Your task to perform on an android device: Add corsair k70 to the cart on amazon, then select checkout. Image 0: 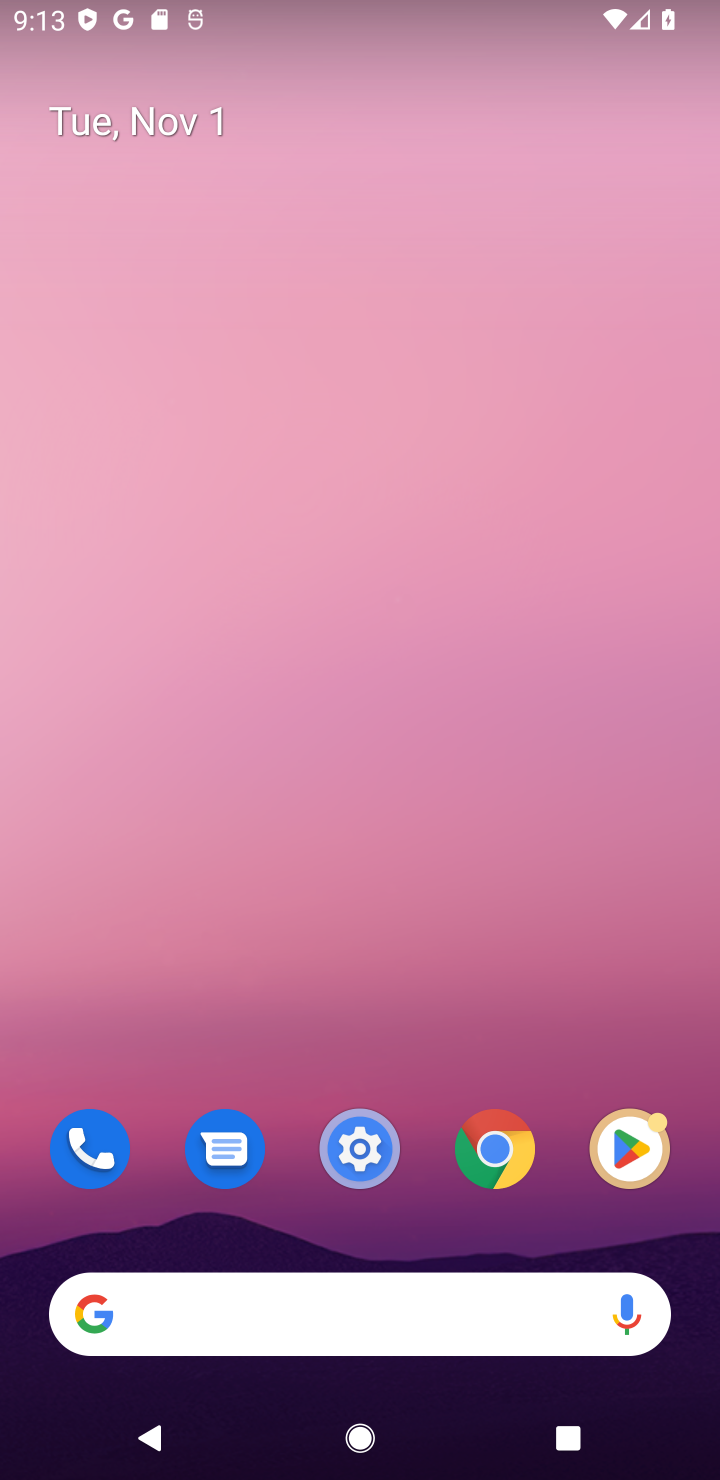
Step 0: press home button
Your task to perform on an android device: Add corsair k70 to the cart on amazon, then select checkout. Image 1: 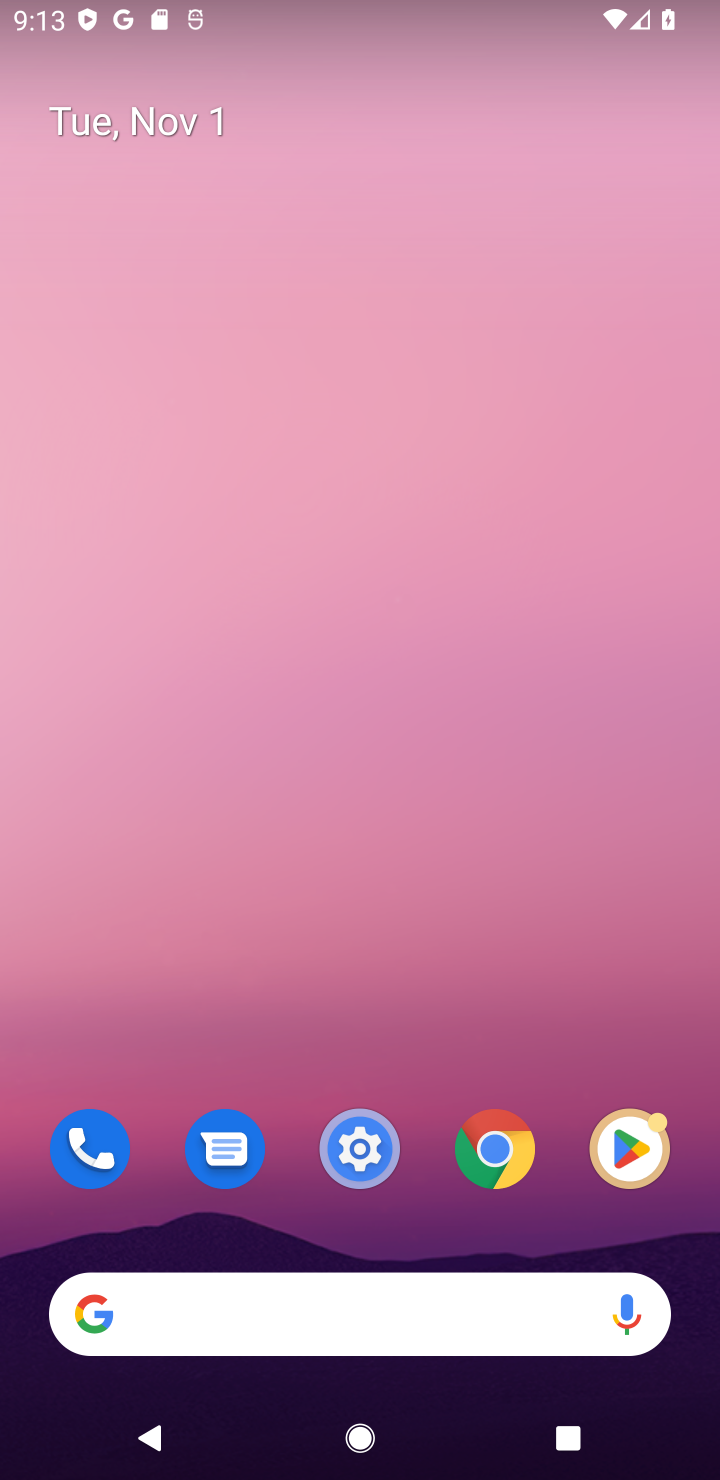
Step 1: click (167, 1322)
Your task to perform on an android device: Add corsair k70 to the cart on amazon, then select checkout. Image 2: 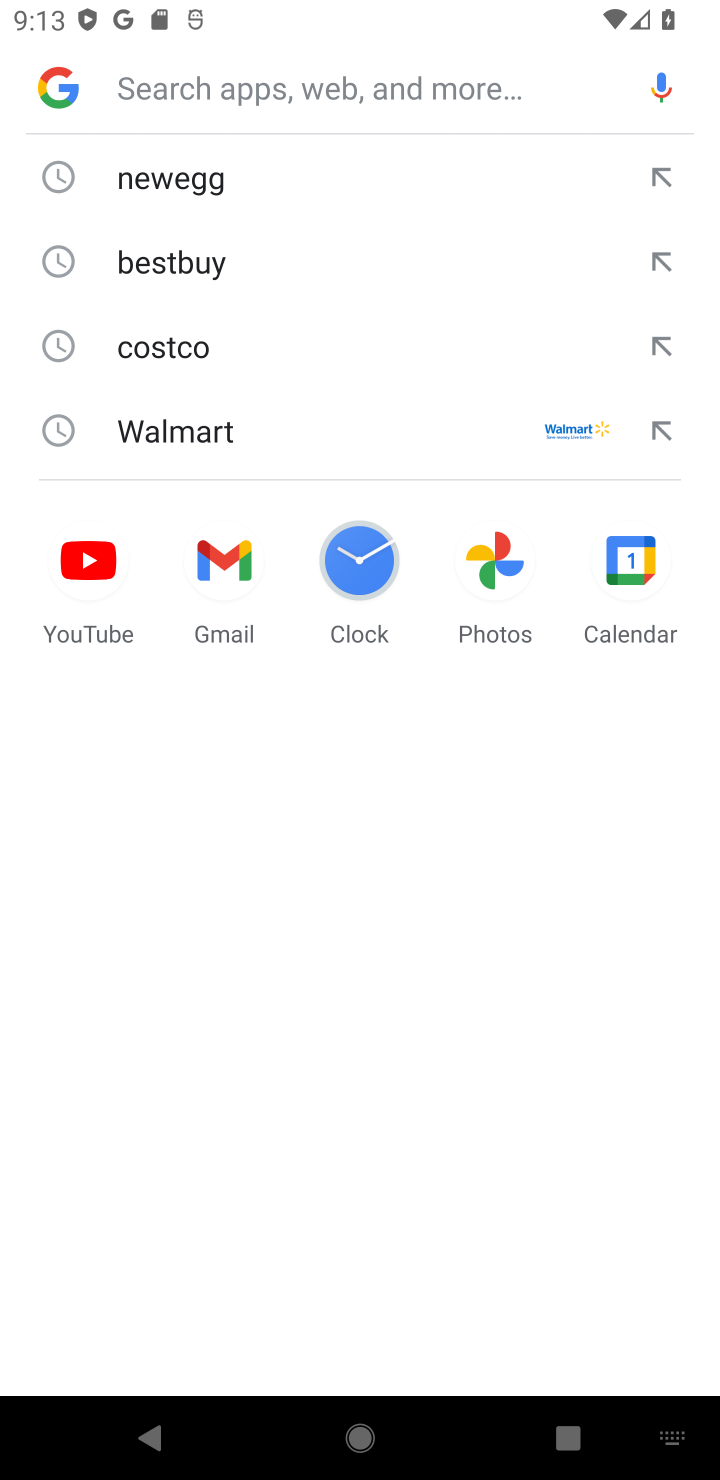
Step 2: type "amazon"
Your task to perform on an android device: Add corsair k70 to the cart on amazon, then select checkout. Image 3: 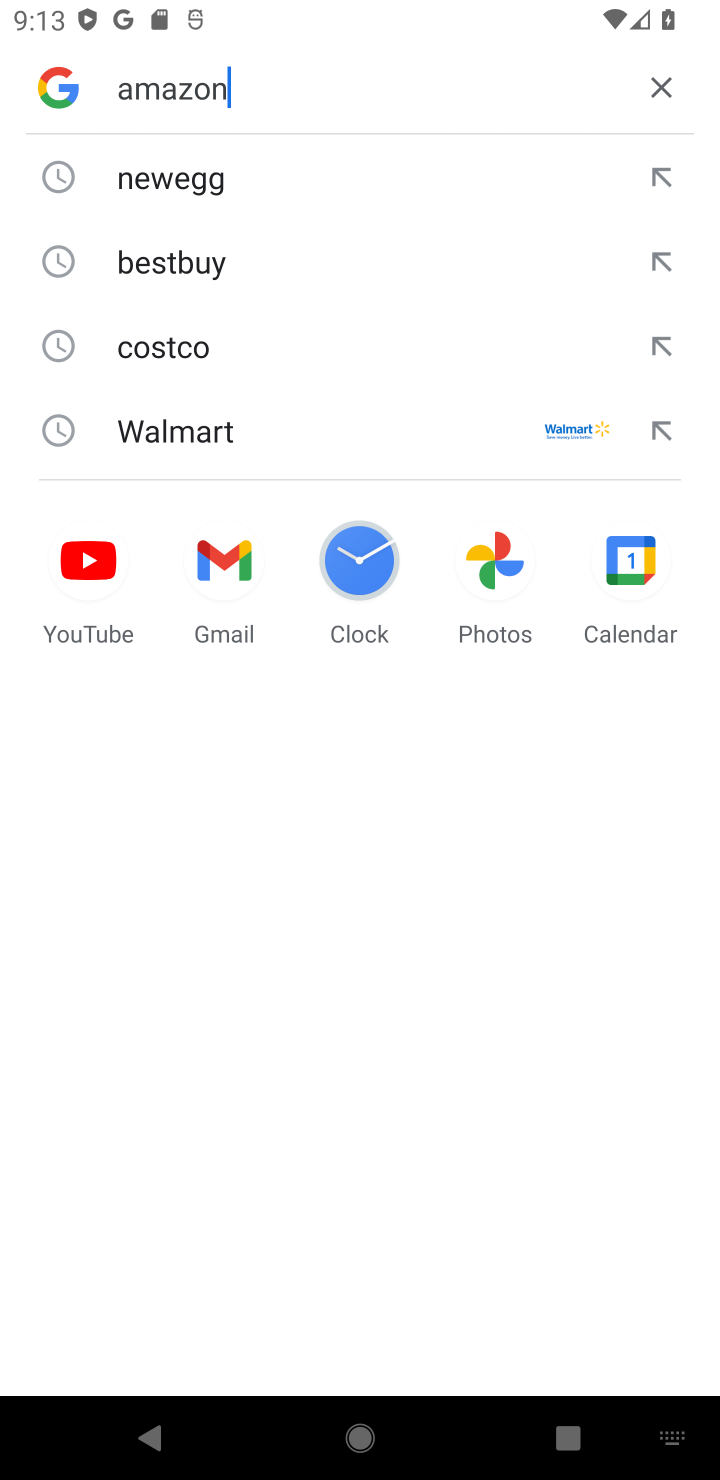
Step 3: press enter
Your task to perform on an android device: Add corsair k70 to the cart on amazon, then select checkout. Image 4: 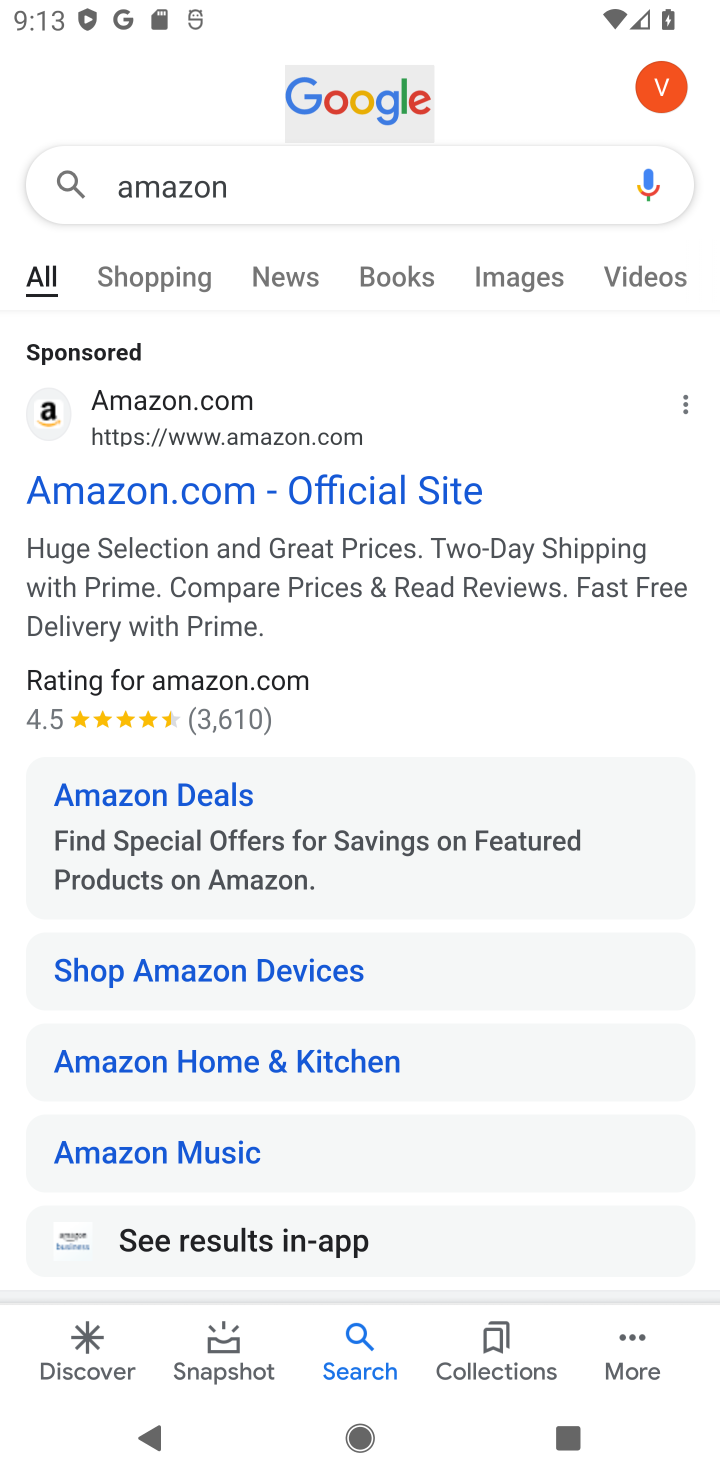
Step 4: click (287, 494)
Your task to perform on an android device: Add corsair k70 to the cart on amazon, then select checkout. Image 5: 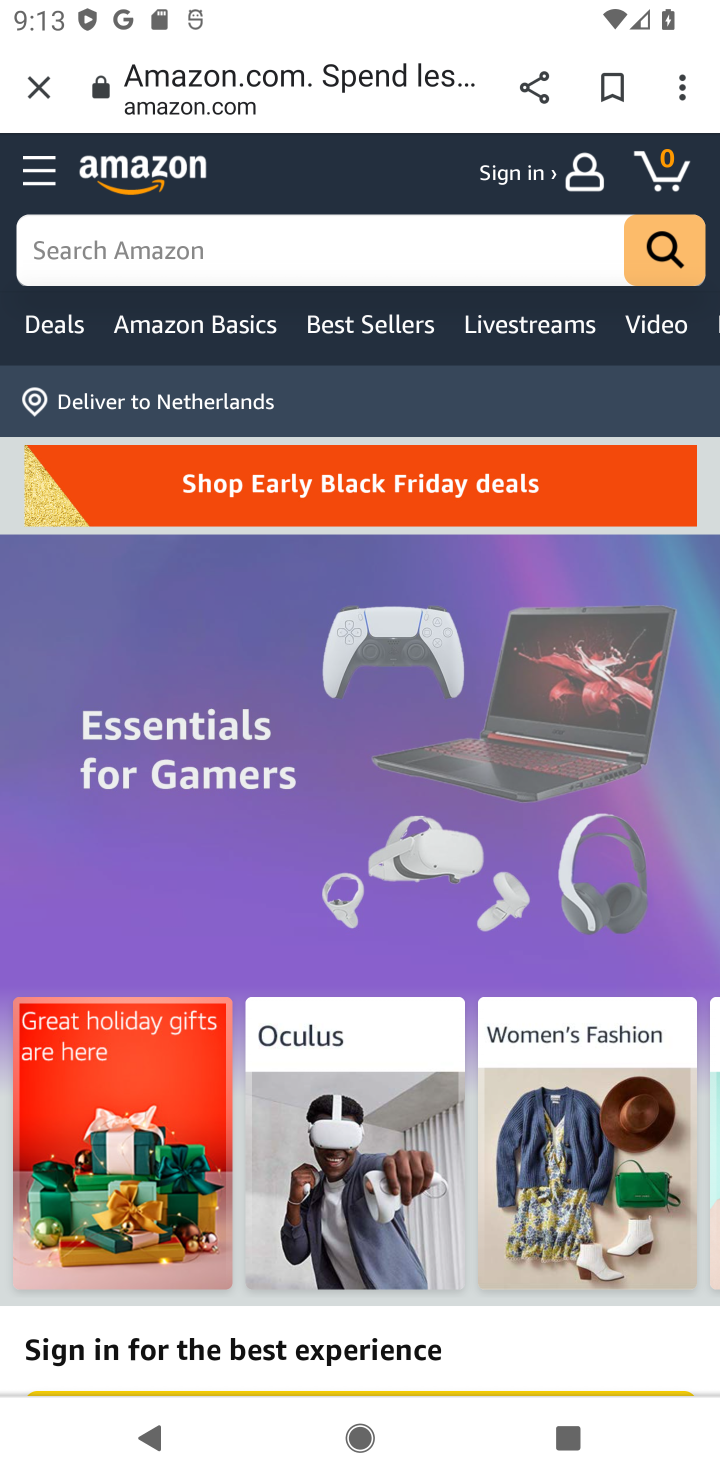
Step 5: click (73, 248)
Your task to perform on an android device: Add corsair k70 to the cart on amazon, then select checkout. Image 6: 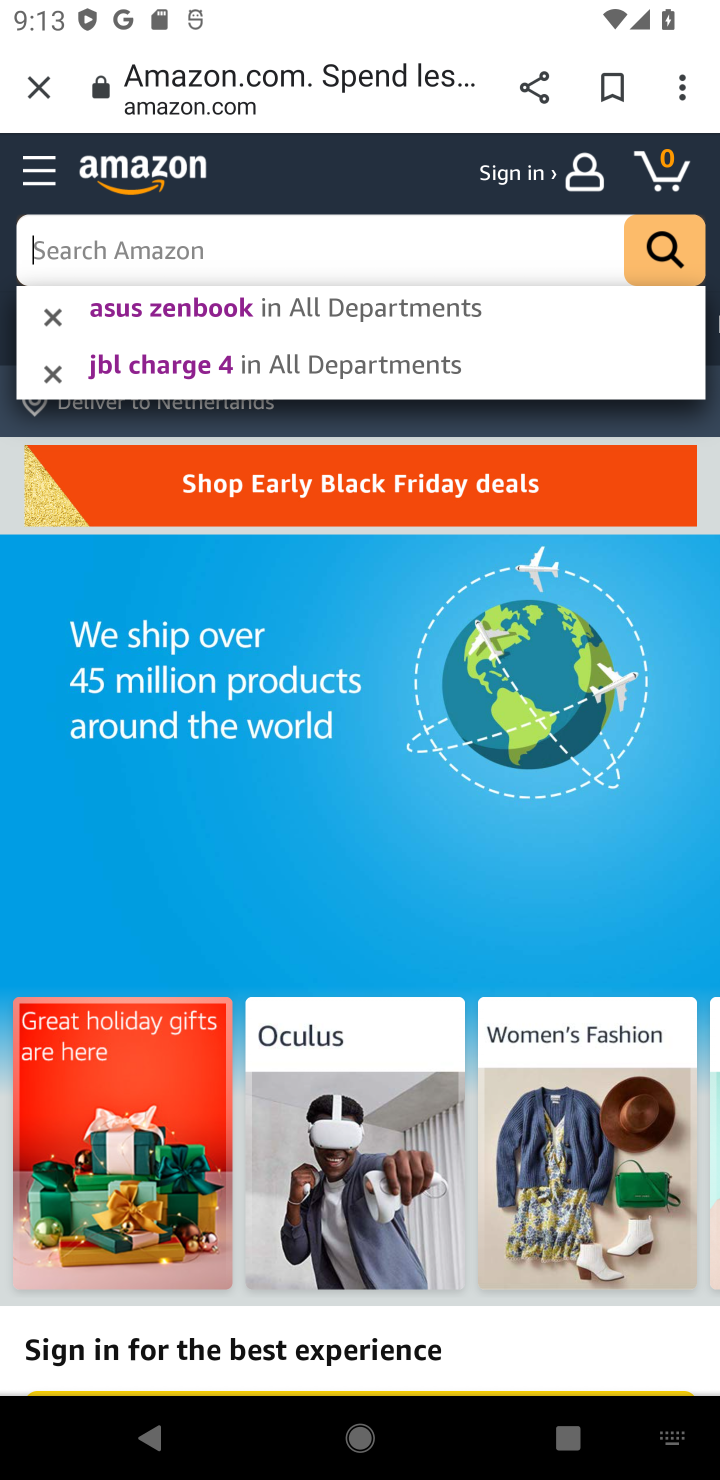
Step 6: type "corsair k70"
Your task to perform on an android device: Add corsair k70 to the cart on amazon, then select checkout. Image 7: 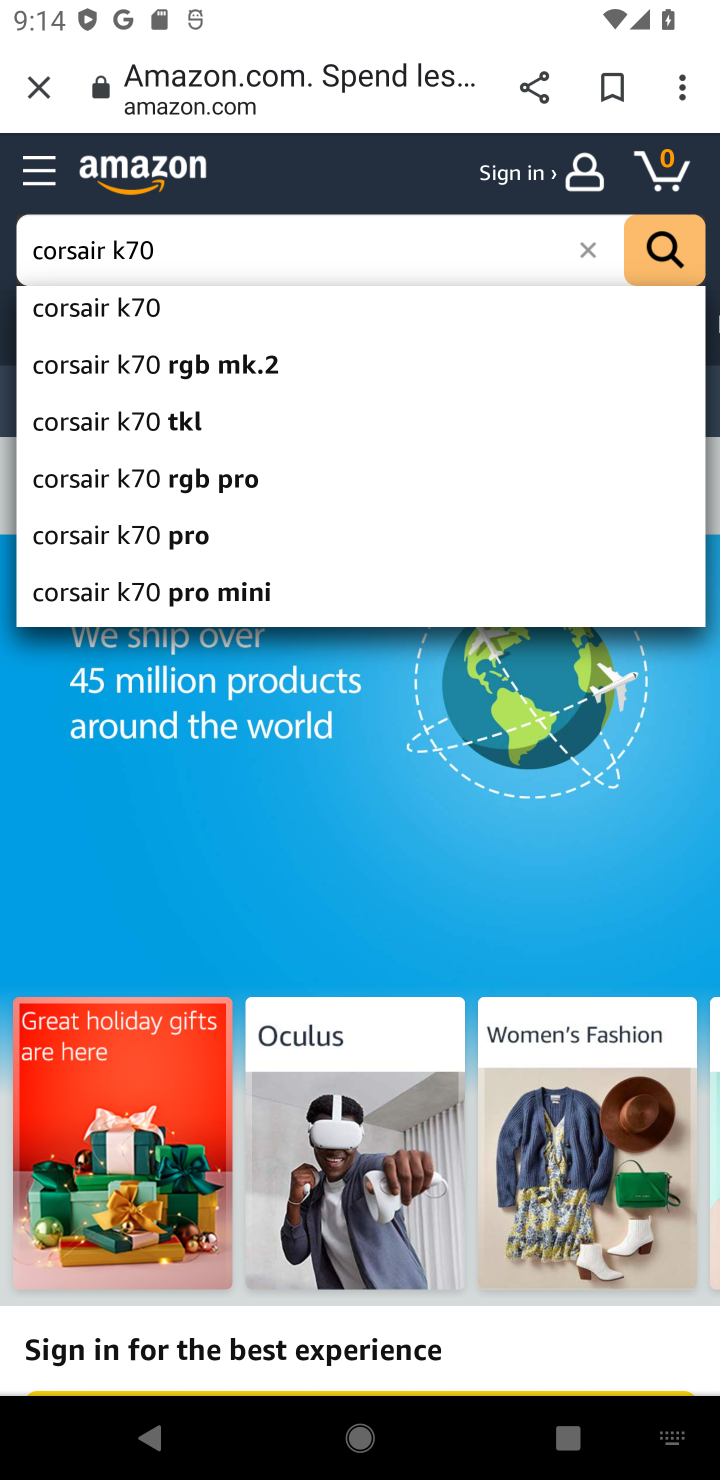
Step 7: click (657, 242)
Your task to perform on an android device: Add corsair k70 to the cart on amazon, then select checkout. Image 8: 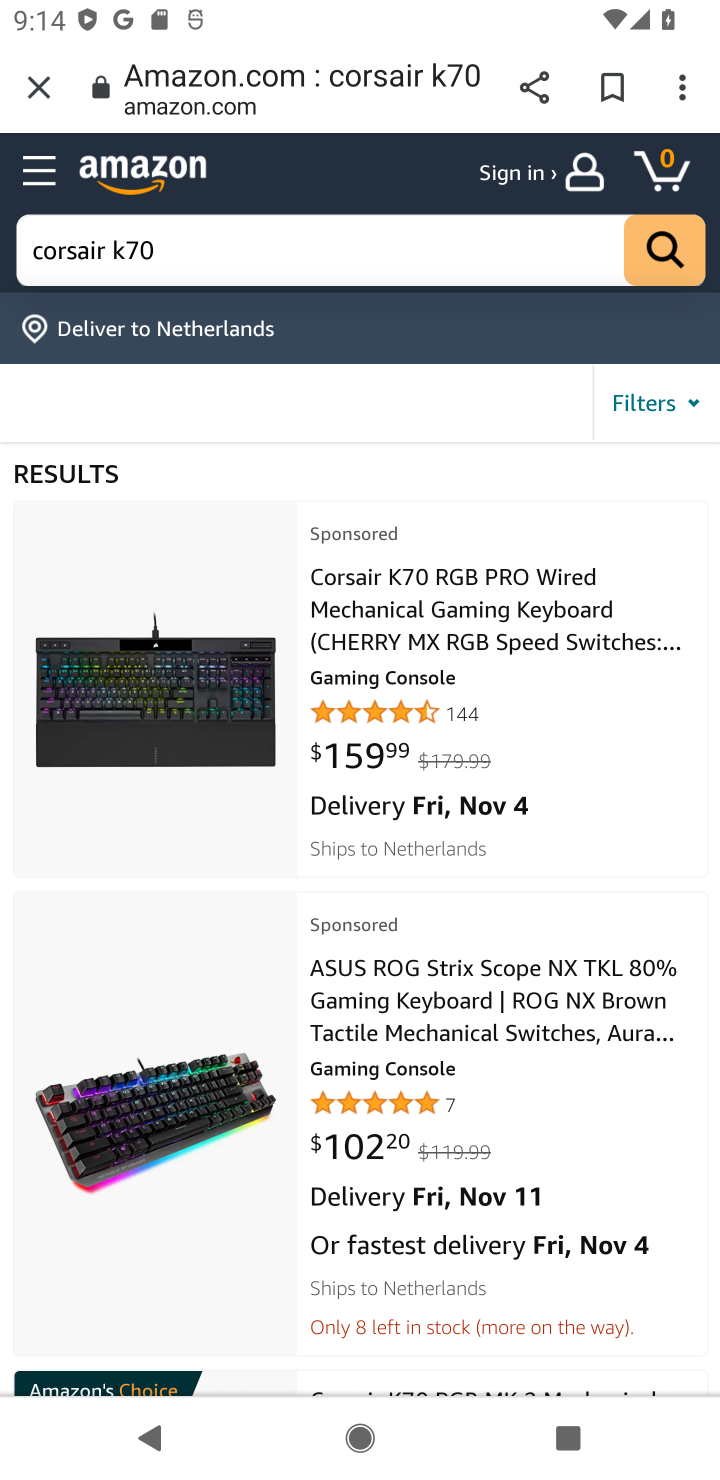
Step 8: click (477, 618)
Your task to perform on an android device: Add corsair k70 to the cart on amazon, then select checkout. Image 9: 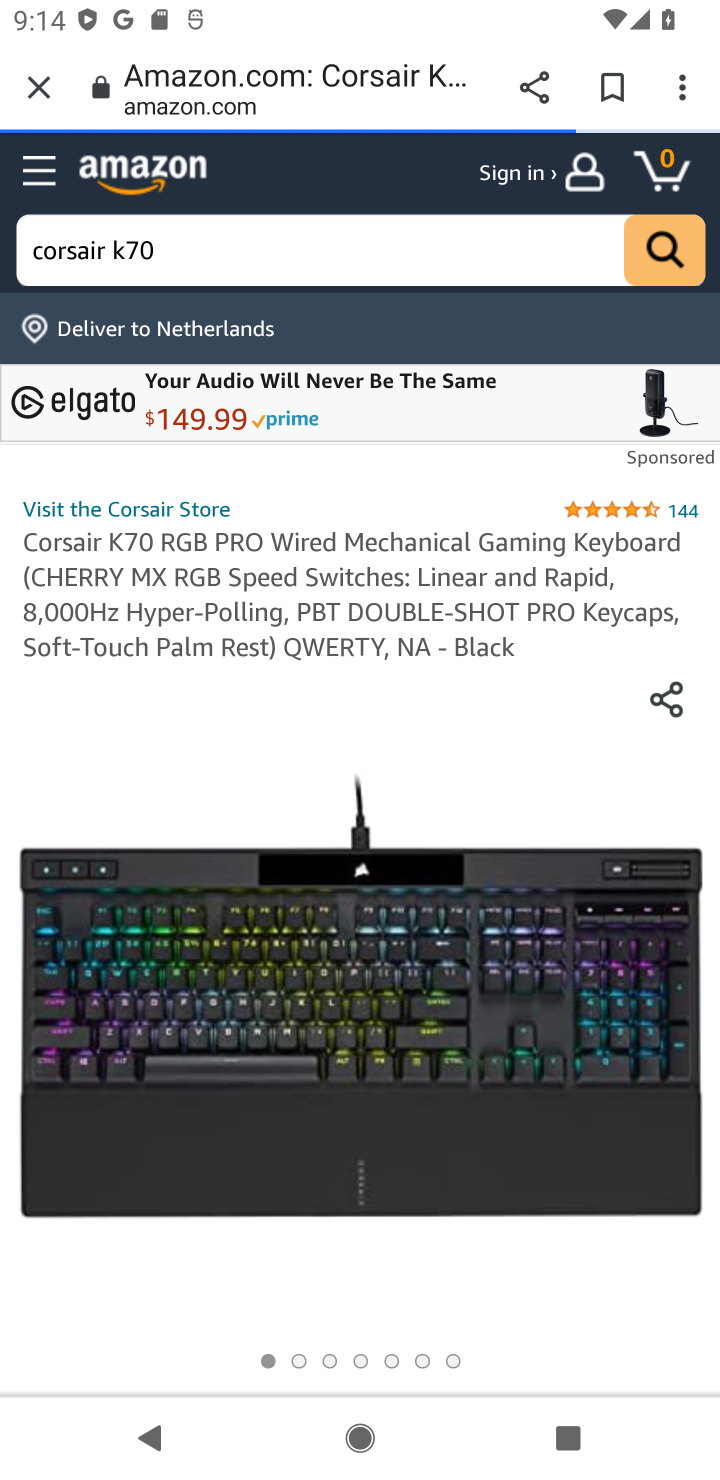
Step 9: drag from (420, 1150) to (426, 449)
Your task to perform on an android device: Add corsair k70 to the cart on amazon, then select checkout. Image 10: 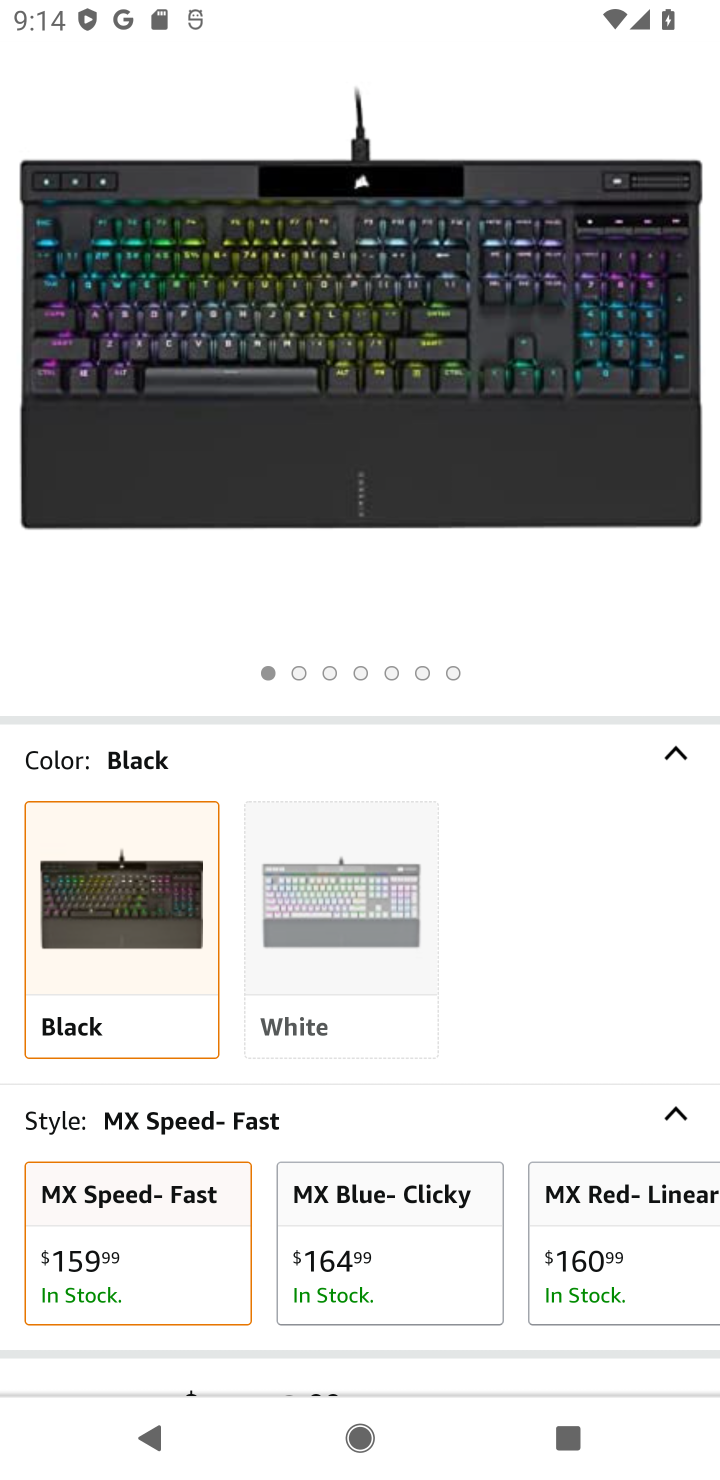
Step 10: drag from (391, 899) to (391, 289)
Your task to perform on an android device: Add corsair k70 to the cart on amazon, then select checkout. Image 11: 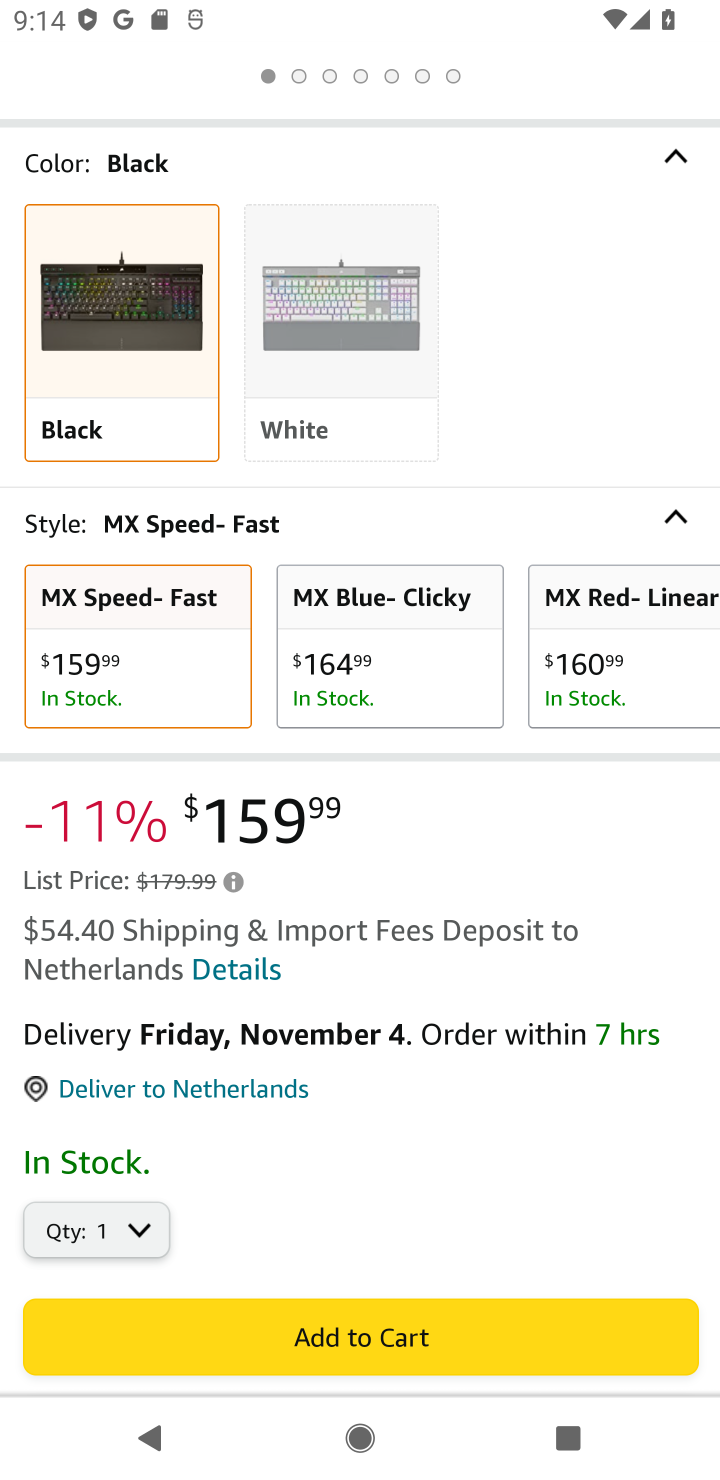
Step 11: click (385, 1336)
Your task to perform on an android device: Add corsair k70 to the cart on amazon, then select checkout. Image 12: 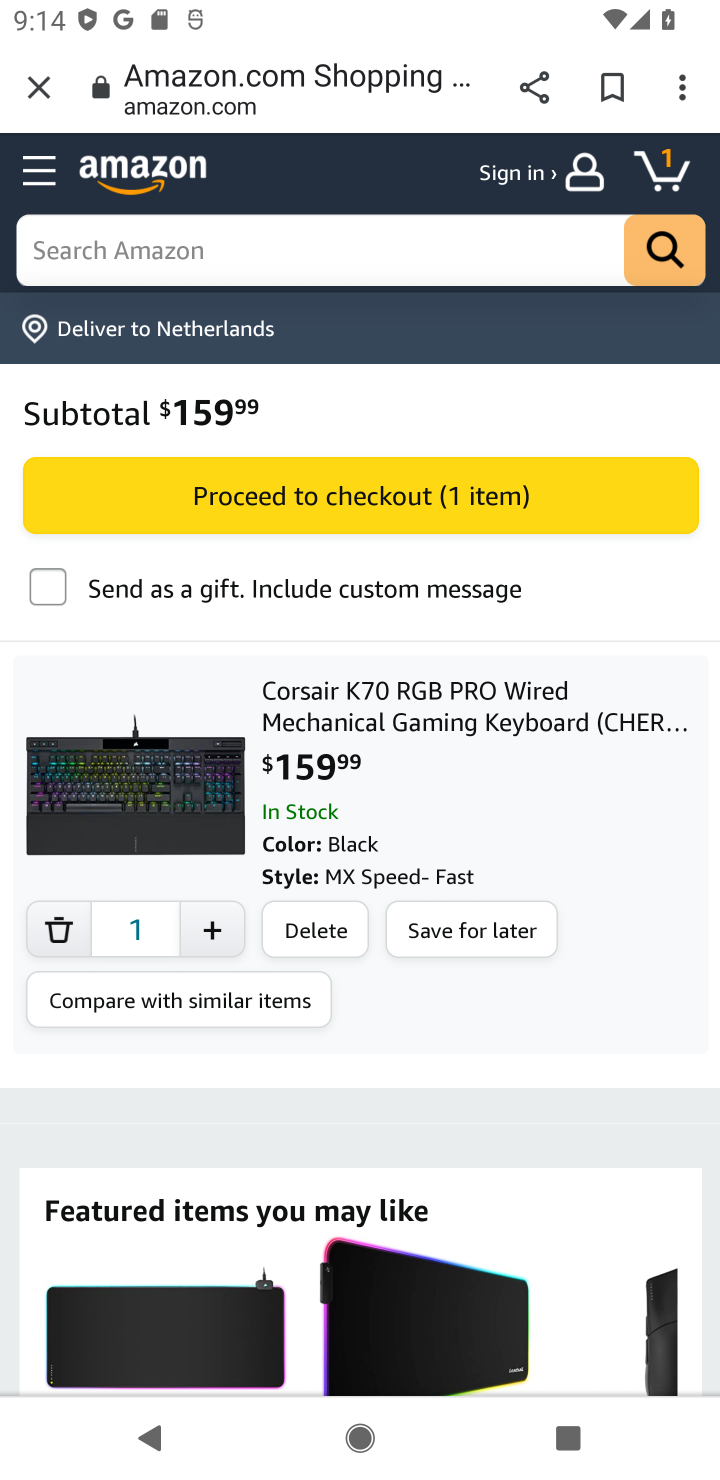
Step 12: click (464, 497)
Your task to perform on an android device: Add corsair k70 to the cart on amazon, then select checkout. Image 13: 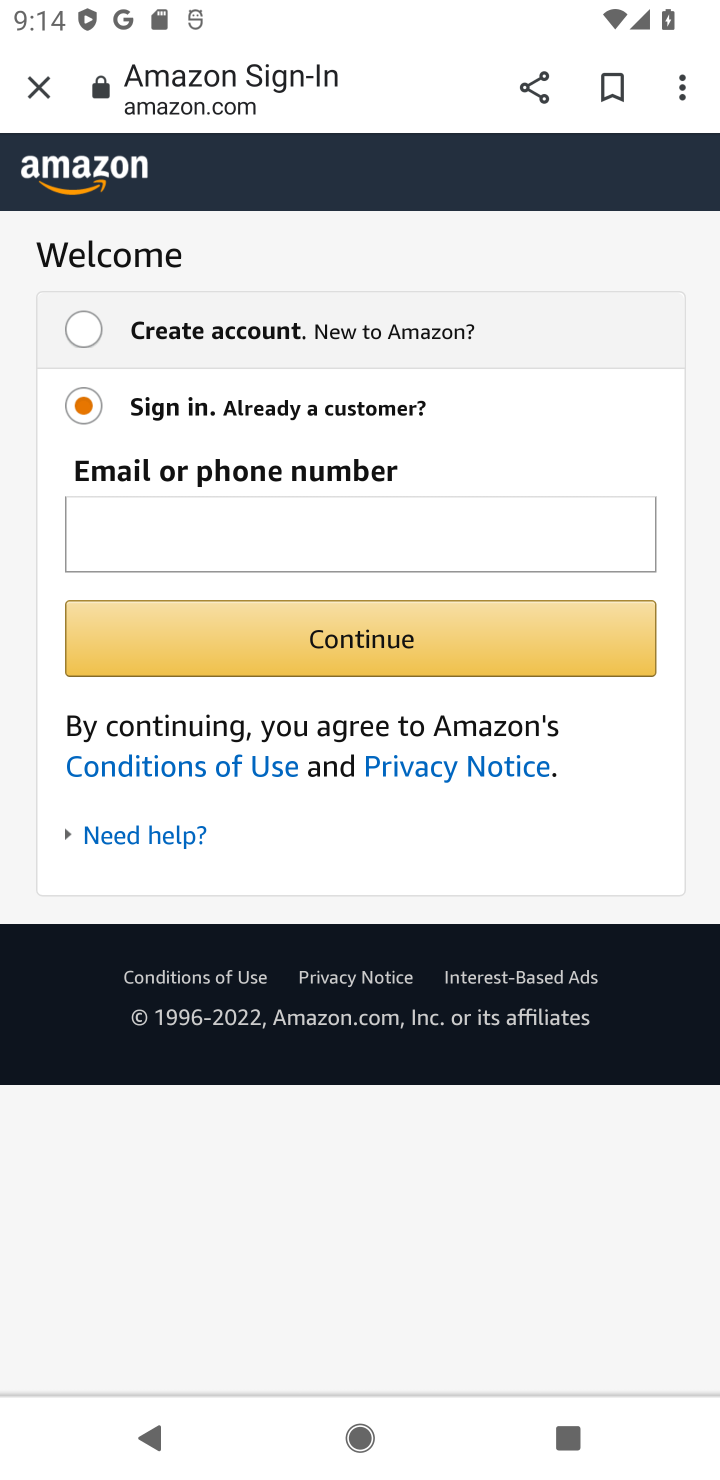
Step 13: task complete